Your task to perform on an android device: turn off picture-in-picture Image 0: 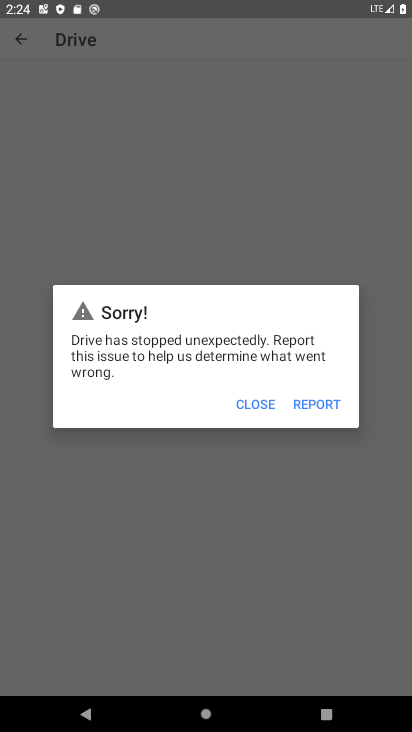
Step 0: press home button
Your task to perform on an android device: turn off picture-in-picture Image 1: 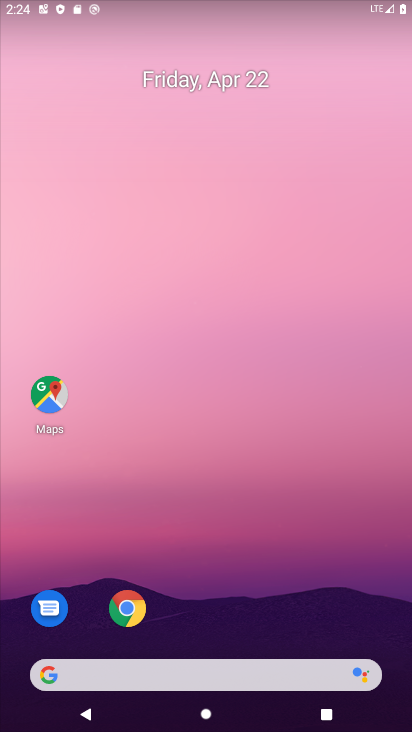
Step 1: drag from (244, 680) to (349, 178)
Your task to perform on an android device: turn off picture-in-picture Image 2: 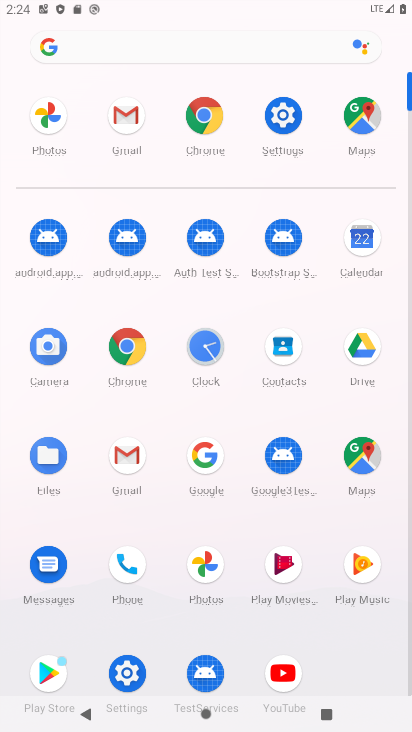
Step 2: click (125, 666)
Your task to perform on an android device: turn off picture-in-picture Image 3: 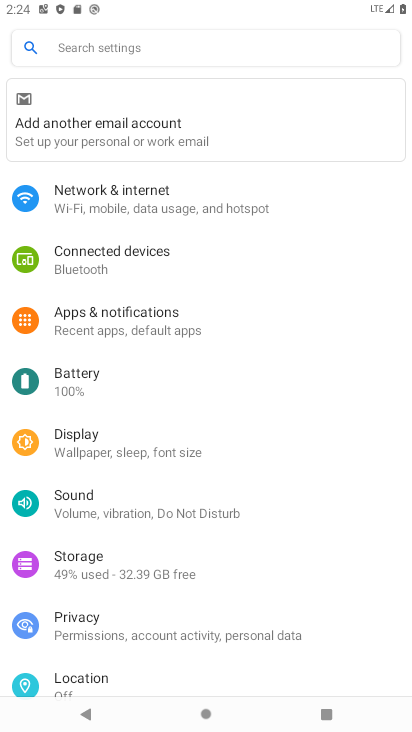
Step 3: click (168, 56)
Your task to perform on an android device: turn off picture-in-picture Image 4: 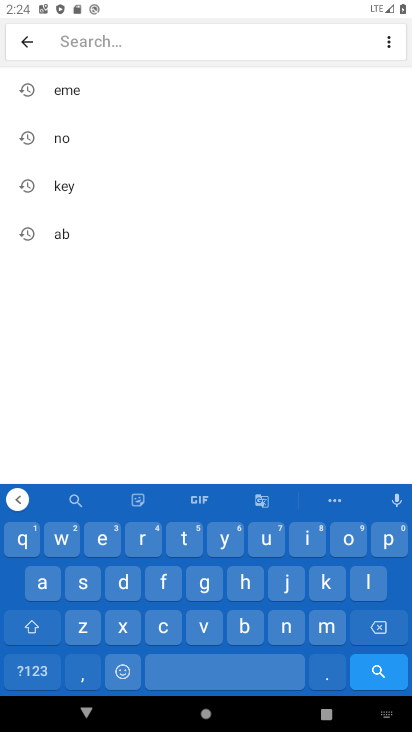
Step 4: click (386, 542)
Your task to perform on an android device: turn off picture-in-picture Image 5: 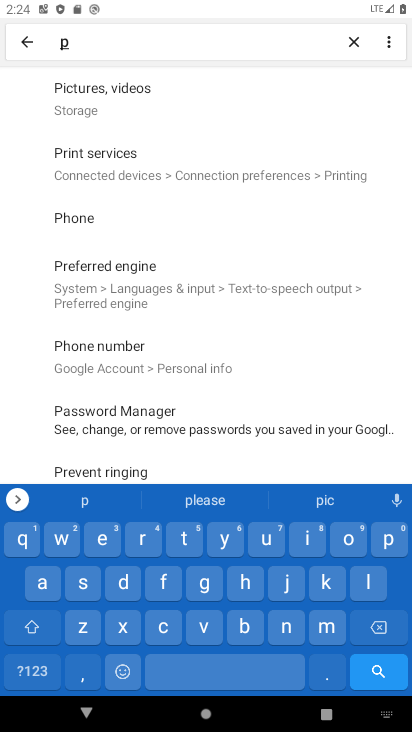
Step 5: click (301, 544)
Your task to perform on an android device: turn off picture-in-picture Image 6: 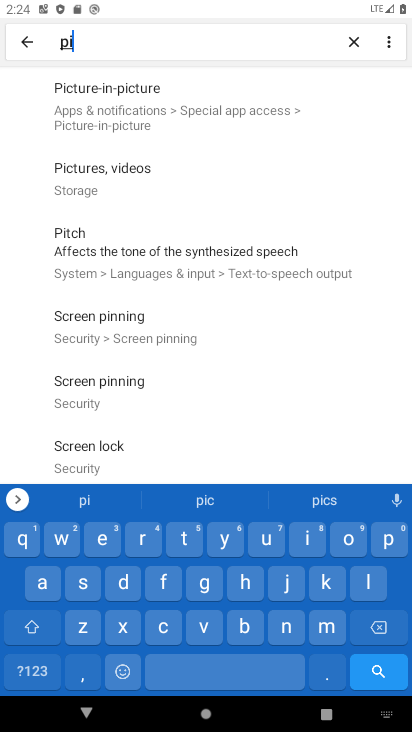
Step 6: click (157, 622)
Your task to perform on an android device: turn off picture-in-picture Image 7: 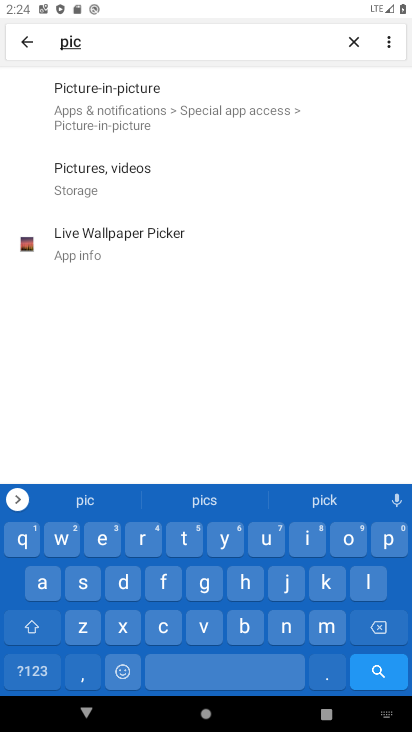
Step 7: click (165, 100)
Your task to perform on an android device: turn off picture-in-picture Image 8: 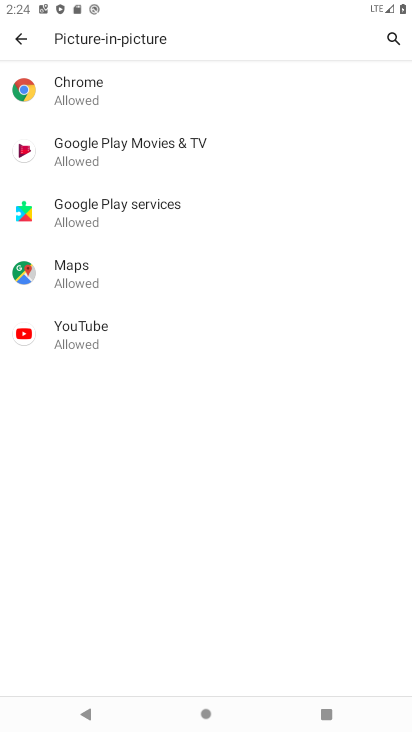
Step 8: task complete